Your task to perform on an android device: turn off translation in the chrome app Image 0: 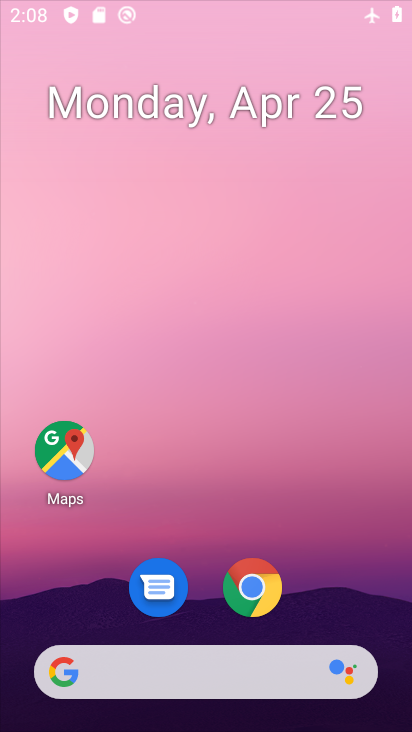
Step 0: click (281, 127)
Your task to perform on an android device: turn off translation in the chrome app Image 1: 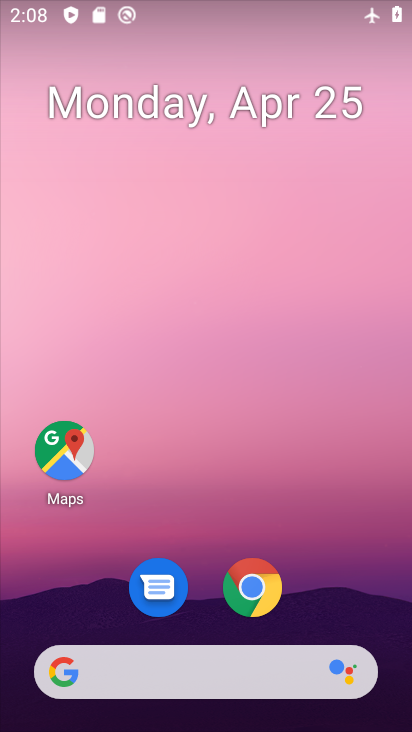
Step 1: drag from (344, 595) to (273, 94)
Your task to perform on an android device: turn off translation in the chrome app Image 2: 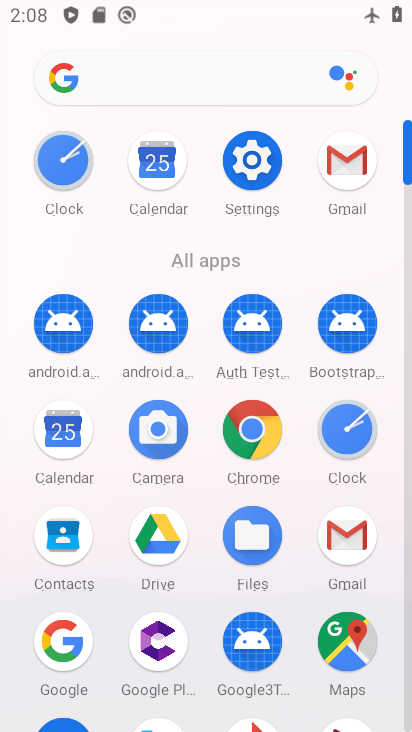
Step 2: click (255, 434)
Your task to perform on an android device: turn off translation in the chrome app Image 3: 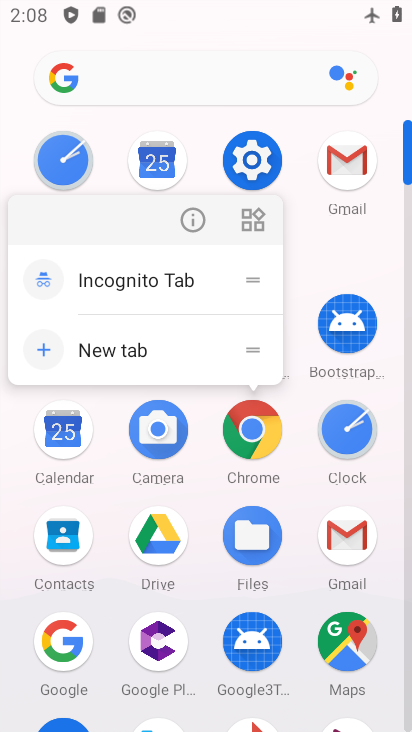
Step 3: click (257, 434)
Your task to perform on an android device: turn off translation in the chrome app Image 4: 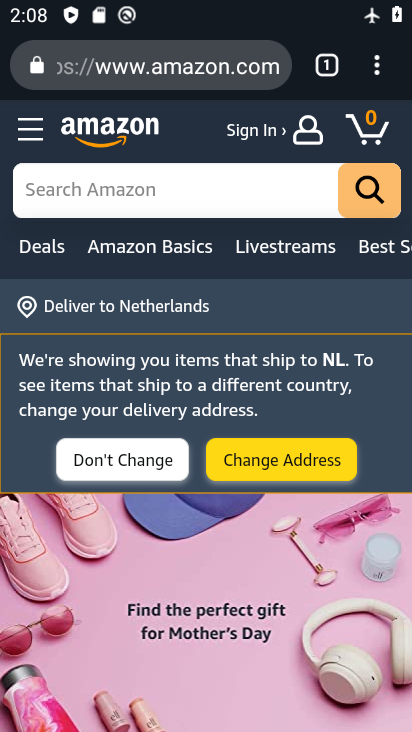
Step 4: click (383, 65)
Your task to perform on an android device: turn off translation in the chrome app Image 5: 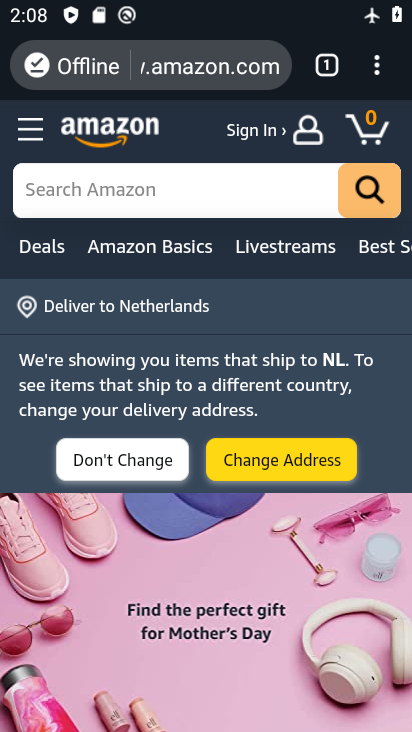
Step 5: drag from (382, 60) to (218, 626)
Your task to perform on an android device: turn off translation in the chrome app Image 6: 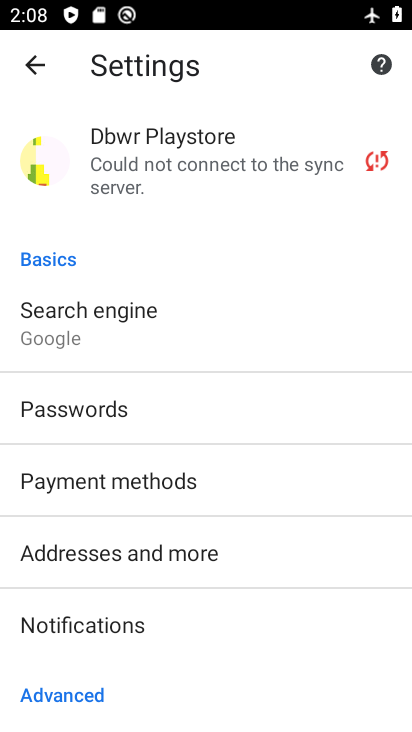
Step 6: drag from (282, 644) to (278, 134)
Your task to perform on an android device: turn off translation in the chrome app Image 7: 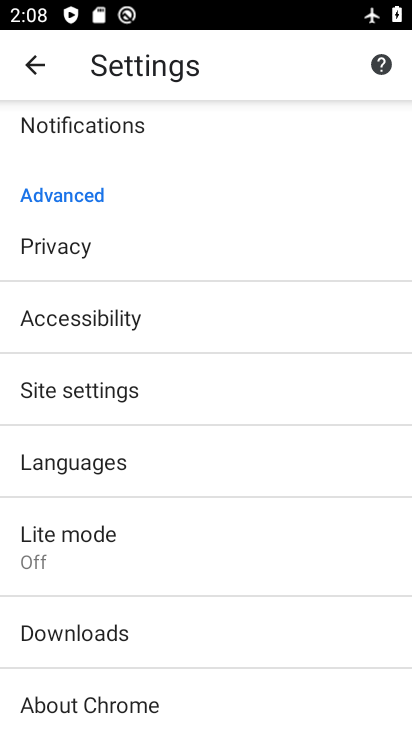
Step 7: drag from (187, 621) to (242, 317)
Your task to perform on an android device: turn off translation in the chrome app Image 8: 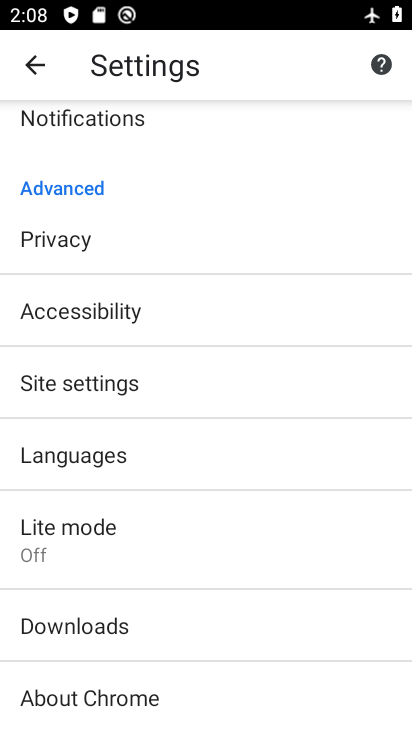
Step 8: click (64, 464)
Your task to perform on an android device: turn off translation in the chrome app Image 9: 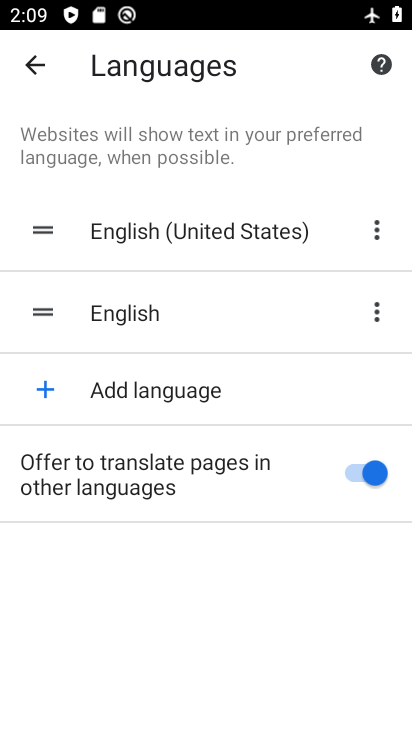
Step 9: click (343, 470)
Your task to perform on an android device: turn off translation in the chrome app Image 10: 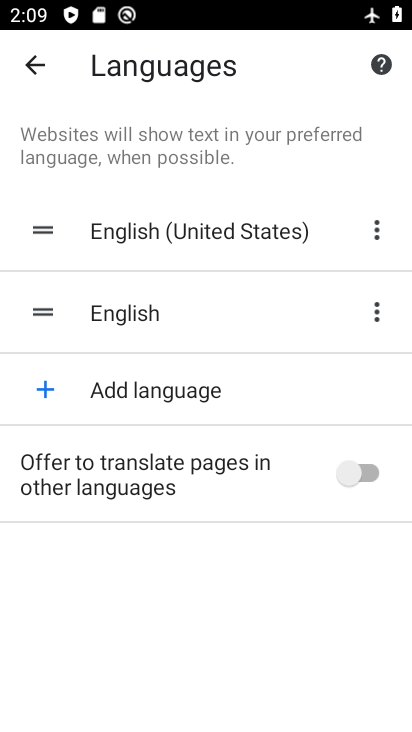
Step 10: task complete